Your task to perform on an android device: Go to Google maps Image 0: 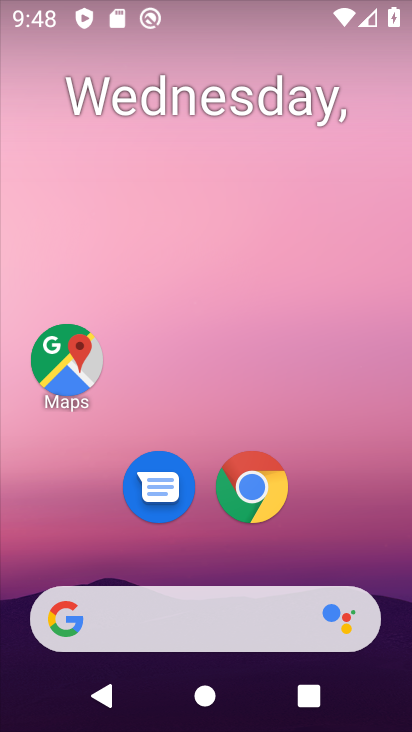
Step 0: click (52, 362)
Your task to perform on an android device: Go to Google maps Image 1: 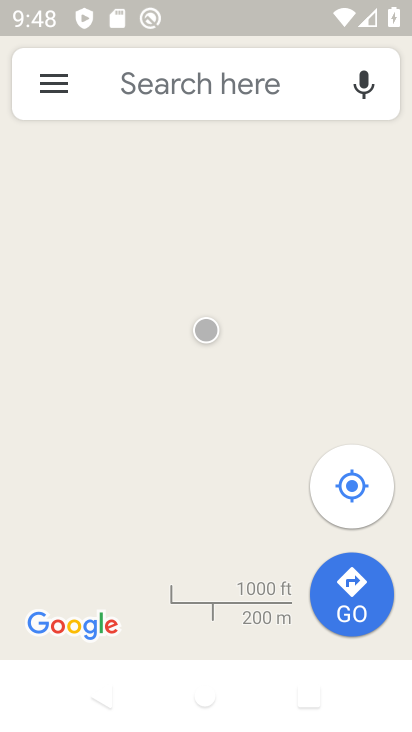
Step 1: task complete